Your task to perform on an android device: Empty the shopping cart on ebay. Search for logitech g933 on ebay, select the first entry, add it to the cart, then select checkout. Image 0: 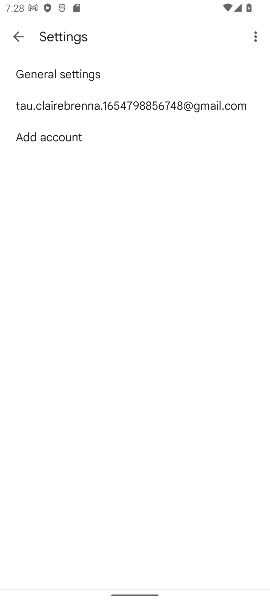
Step 0: press home button
Your task to perform on an android device: Empty the shopping cart on ebay. Search for logitech g933 on ebay, select the first entry, add it to the cart, then select checkout. Image 1: 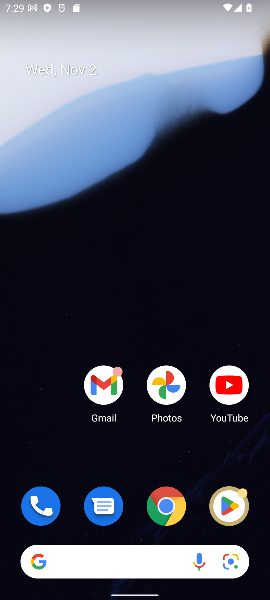
Step 1: click (140, 554)
Your task to perform on an android device: Empty the shopping cart on ebay. Search for logitech g933 on ebay, select the first entry, add it to the cart, then select checkout. Image 2: 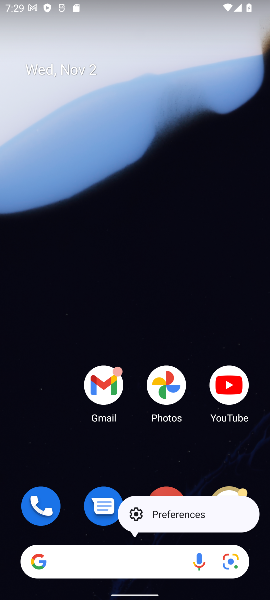
Step 2: click (78, 560)
Your task to perform on an android device: Empty the shopping cart on ebay. Search for logitech g933 on ebay, select the first entry, add it to the cart, then select checkout. Image 3: 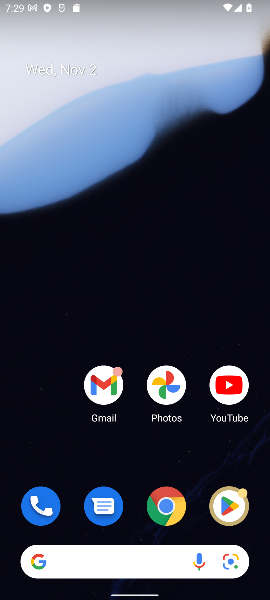
Step 3: click (78, 560)
Your task to perform on an android device: Empty the shopping cart on ebay. Search for logitech g933 on ebay, select the first entry, add it to the cart, then select checkout. Image 4: 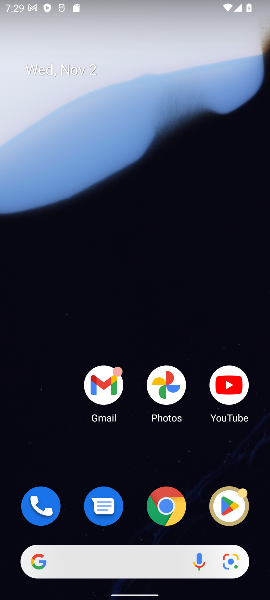
Step 4: click (78, 560)
Your task to perform on an android device: Empty the shopping cart on ebay. Search for logitech g933 on ebay, select the first entry, add it to the cart, then select checkout. Image 5: 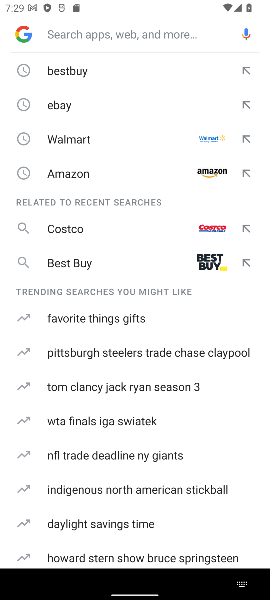
Step 5: type "ebay"
Your task to perform on an android device: Empty the shopping cart on ebay. Search for logitech g933 on ebay, select the first entry, add it to the cart, then select checkout. Image 6: 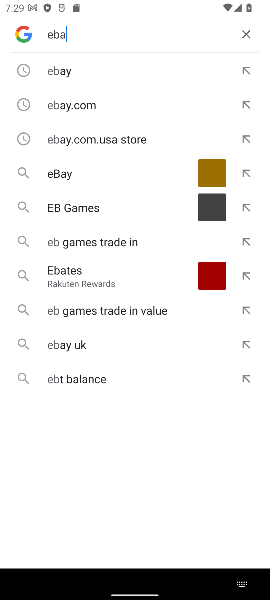
Step 6: type ""
Your task to perform on an android device: Empty the shopping cart on ebay. Search for logitech g933 on ebay, select the first entry, add it to the cart, then select checkout. Image 7: 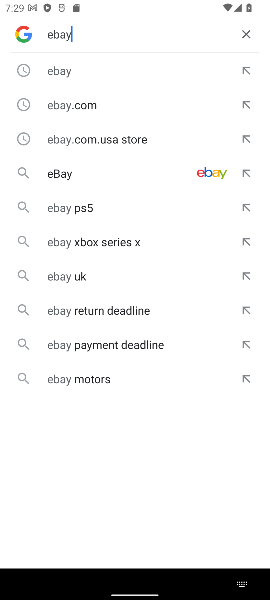
Step 7: press enter
Your task to perform on an android device: Empty the shopping cart on ebay. Search for logitech g933 on ebay, select the first entry, add it to the cart, then select checkout. Image 8: 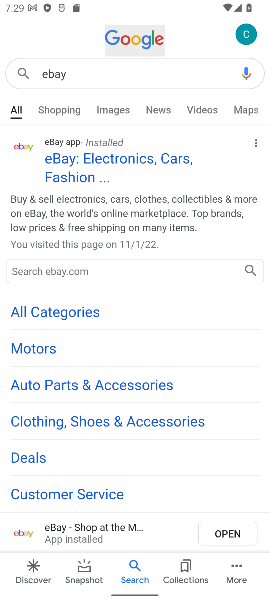
Step 8: click (93, 172)
Your task to perform on an android device: Empty the shopping cart on ebay. Search for logitech g933 on ebay, select the first entry, add it to the cart, then select checkout. Image 9: 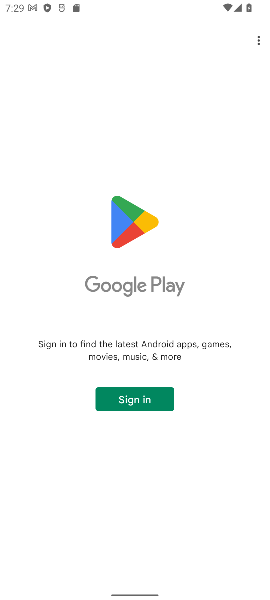
Step 9: click (153, 401)
Your task to perform on an android device: Empty the shopping cart on ebay. Search for logitech g933 on ebay, select the first entry, add it to the cart, then select checkout. Image 10: 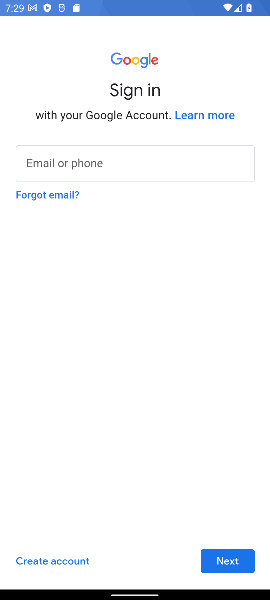
Step 10: click (224, 559)
Your task to perform on an android device: Empty the shopping cart on ebay. Search for logitech g933 on ebay, select the first entry, add it to the cart, then select checkout. Image 11: 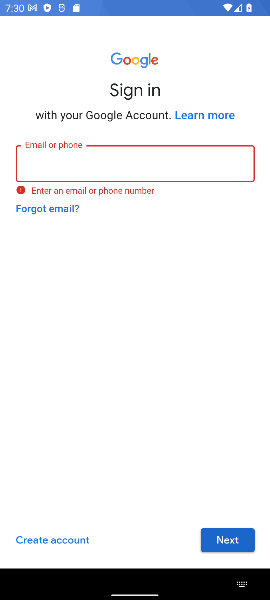
Step 11: task complete